Your task to perform on an android device: When is my next appointment? Image 0: 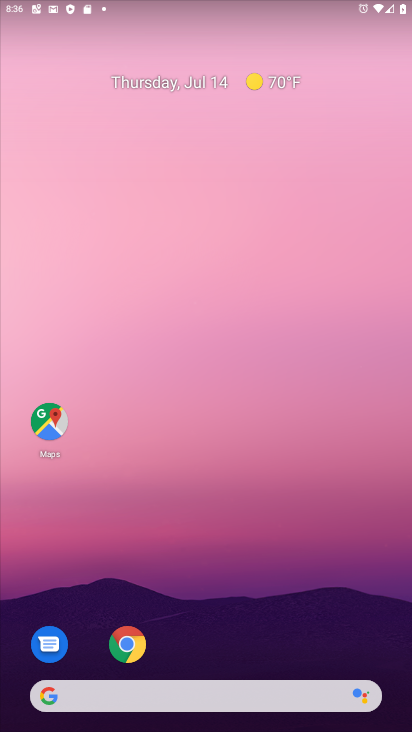
Step 0: drag from (231, 654) to (229, 219)
Your task to perform on an android device: When is my next appointment? Image 1: 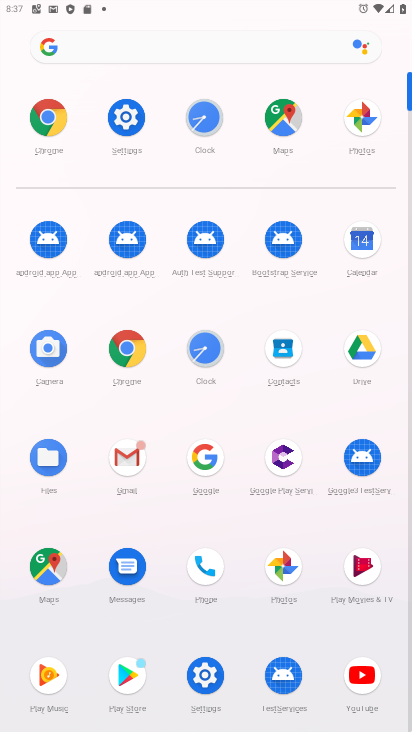
Step 1: click (368, 236)
Your task to perform on an android device: When is my next appointment? Image 2: 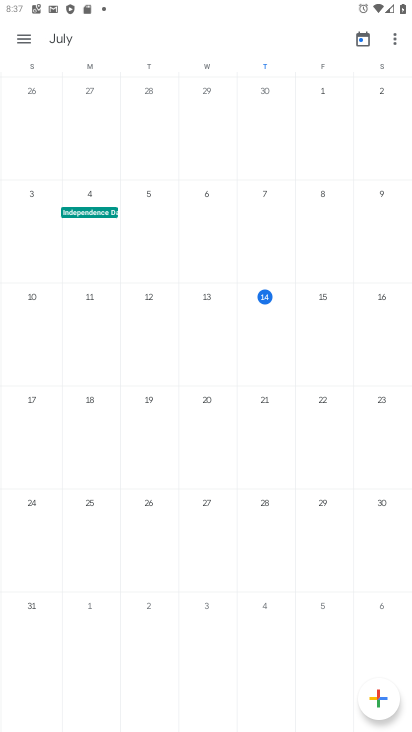
Step 2: click (391, 305)
Your task to perform on an android device: When is my next appointment? Image 3: 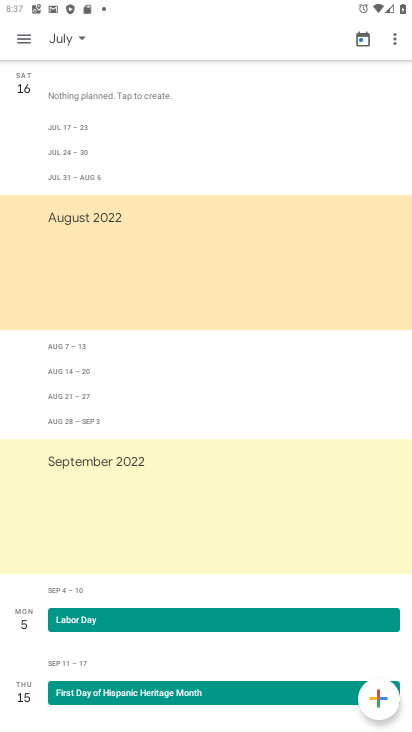
Step 3: task complete